Your task to perform on an android device: change the clock display to digital Image 0: 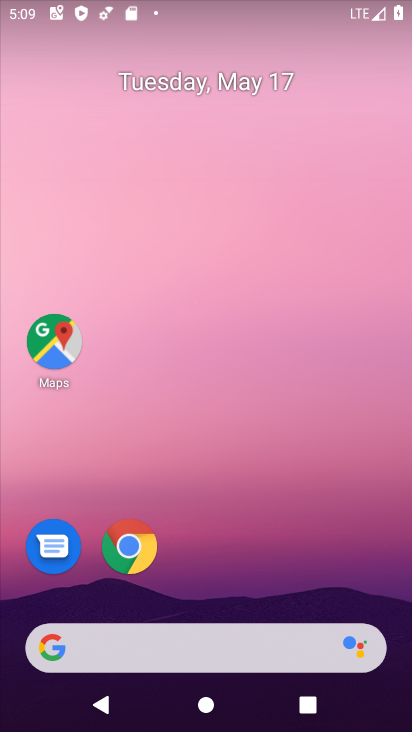
Step 0: drag from (251, 575) to (329, 95)
Your task to perform on an android device: change the clock display to digital Image 1: 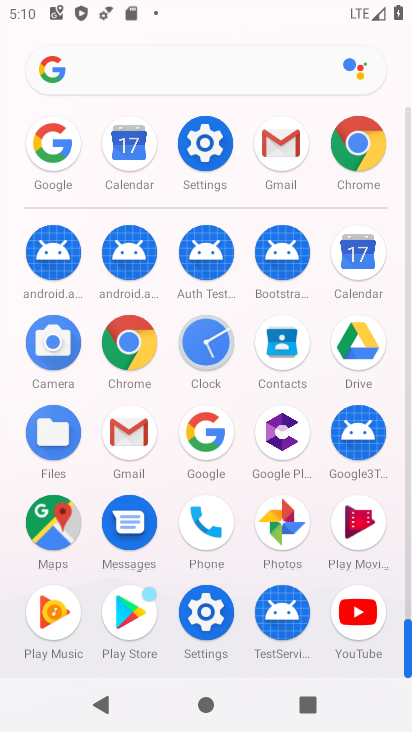
Step 1: click (209, 350)
Your task to perform on an android device: change the clock display to digital Image 2: 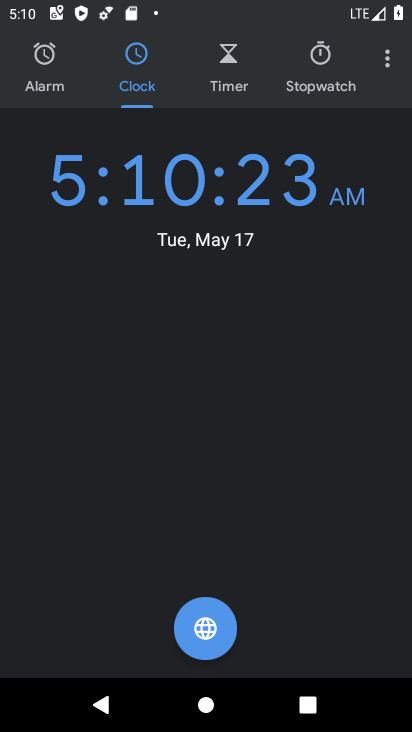
Step 2: click (388, 62)
Your task to perform on an android device: change the clock display to digital Image 3: 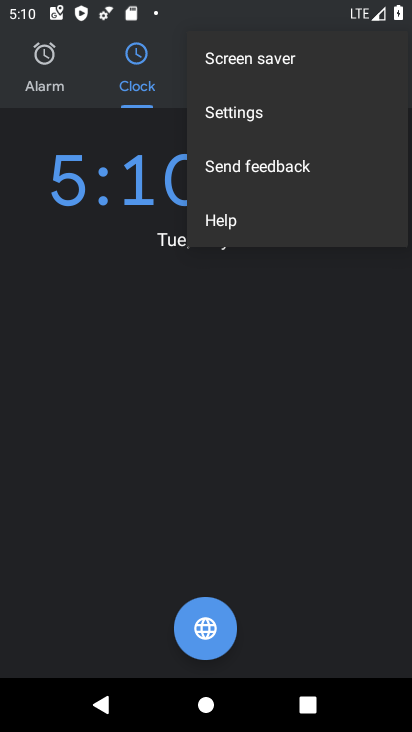
Step 3: click (255, 111)
Your task to perform on an android device: change the clock display to digital Image 4: 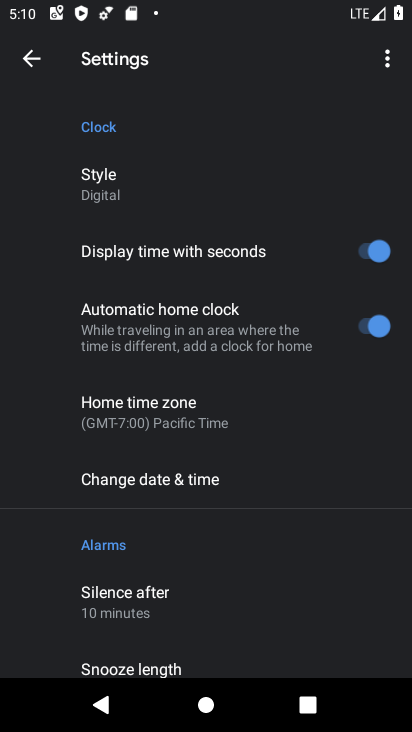
Step 4: task complete